Your task to perform on an android device: Go to calendar. Show me events next week Image 0: 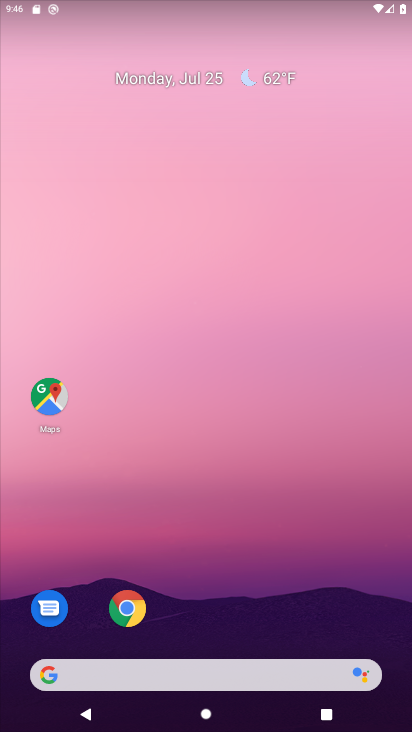
Step 0: press home button
Your task to perform on an android device: Go to calendar. Show me events next week Image 1: 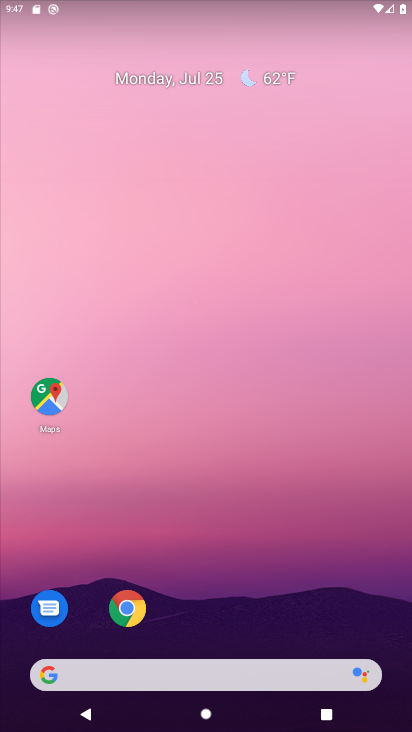
Step 1: drag from (212, 645) to (218, 5)
Your task to perform on an android device: Go to calendar. Show me events next week Image 2: 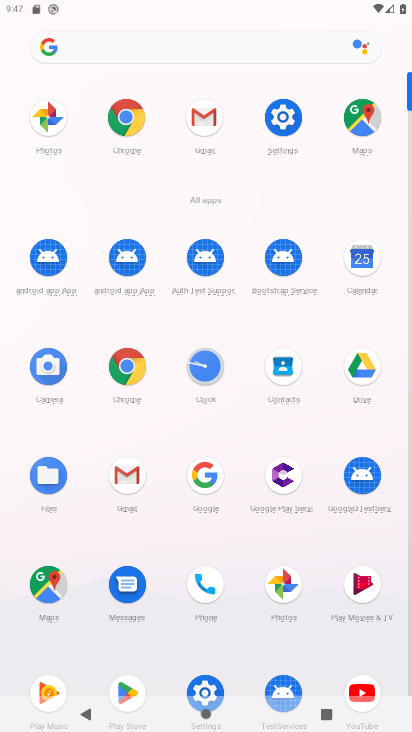
Step 2: click (362, 250)
Your task to perform on an android device: Go to calendar. Show me events next week Image 3: 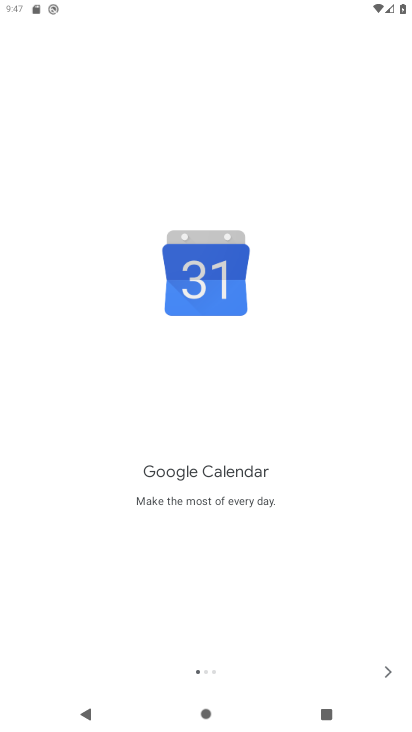
Step 3: click (386, 671)
Your task to perform on an android device: Go to calendar. Show me events next week Image 4: 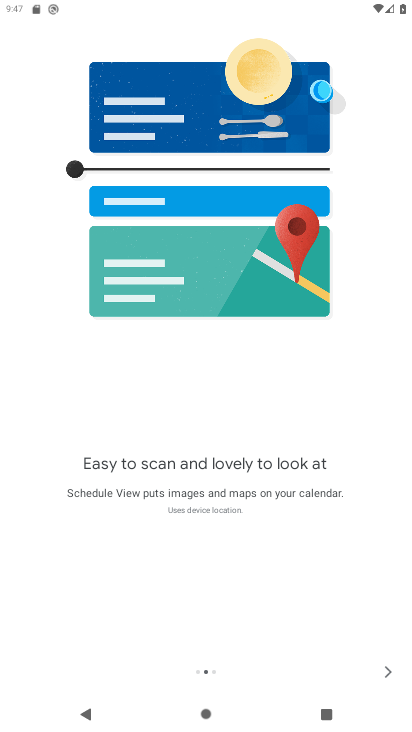
Step 4: click (387, 669)
Your task to perform on an android device: Go to calendar. Show me events next week Image 5: 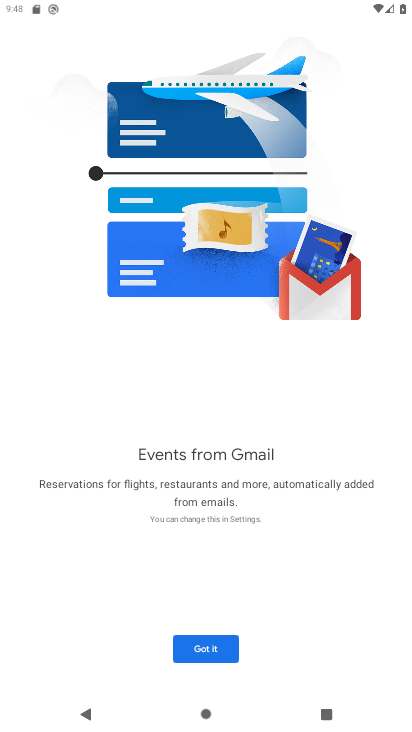
Step 5: click (193, 650)
Your task to perform on an android device: Go to calendar. Show me events next week Image 6: 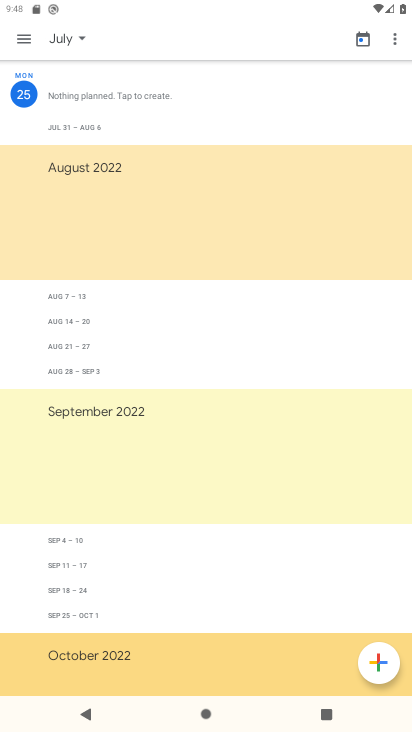
Step 6: click (21, 31)
Your task to perform on an android device: Go to calendar. Show me events next week Image 7: 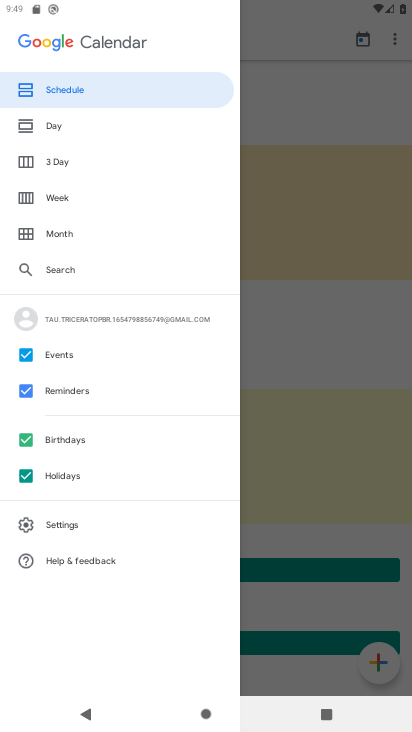
Step 7: click (28, 472)
Your task to perform on an android device: Go to calendar. Show me events next week Image 8: 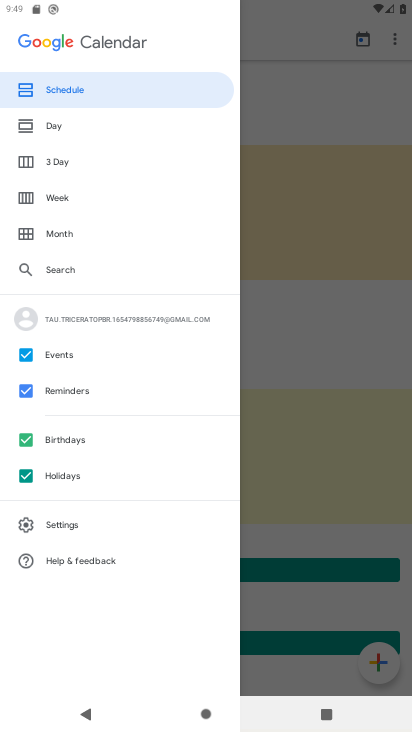
Step 8: click (28, 439)
Your task to perform on an android device: Go to calendar. Show me events next week Image 9: 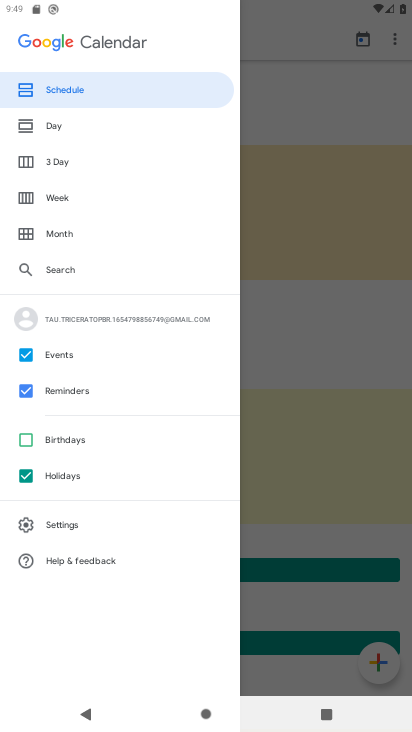
Step 9: click (27, 387)
Your task to perform on an android device: Go to calendar. Show me events next week Image 10: 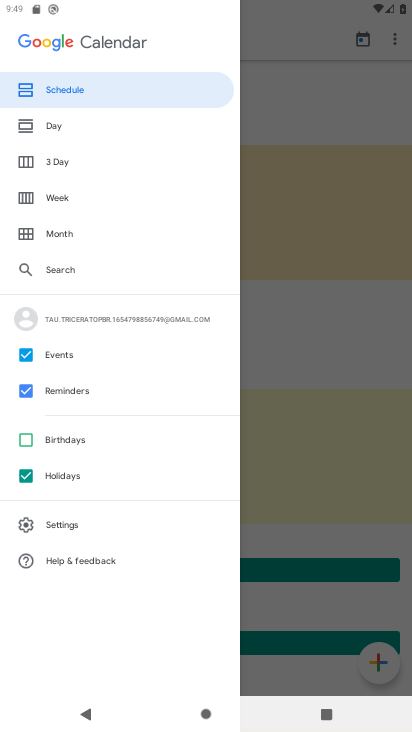
Step 10: click (29, 193)
Your task to perform on an android device: Go to calendar. Show me events next week Image 11: 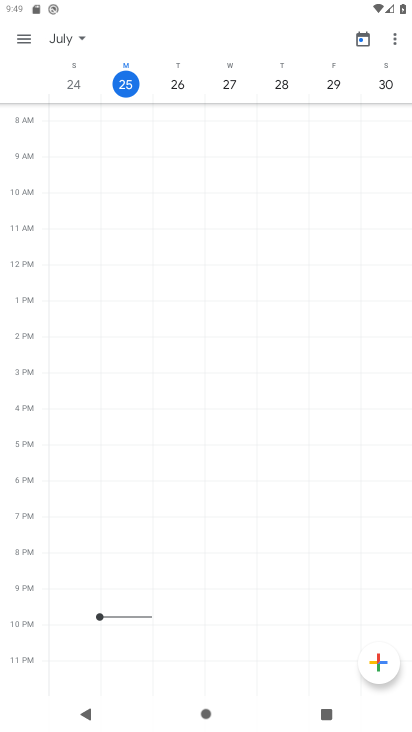
Step 11: task complete